Your task to perform on an android device: Go to location settings Image 0: 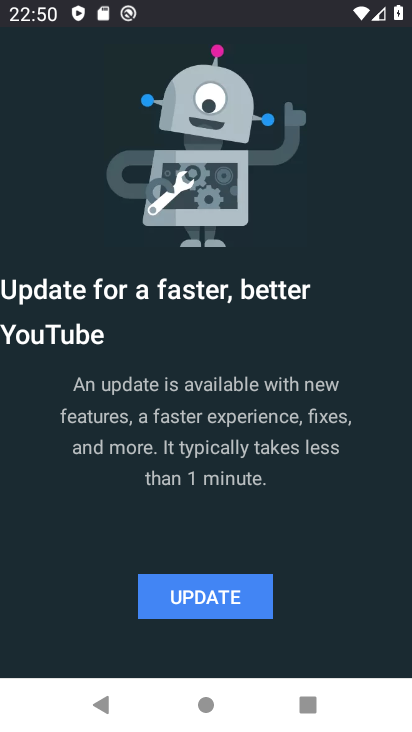
Step 0: press home button
Your task to perform on an android device: Go to location settings Image 1: 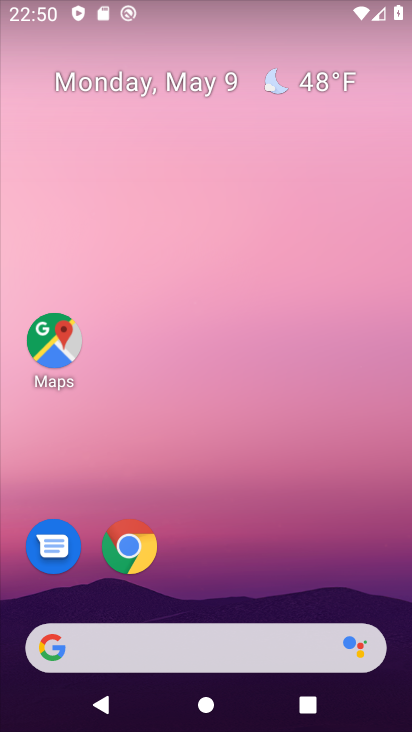
Step 1: drag from (226, 727) to (208, 215)
Your task to perform on an android device: Go to location settings Image 2: 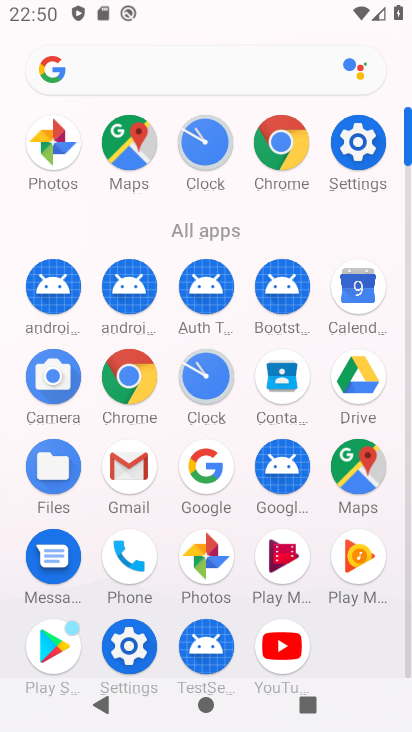
Step 2: click (368, 148)
Your task to perform on an android device: Go to location settings Image 3: 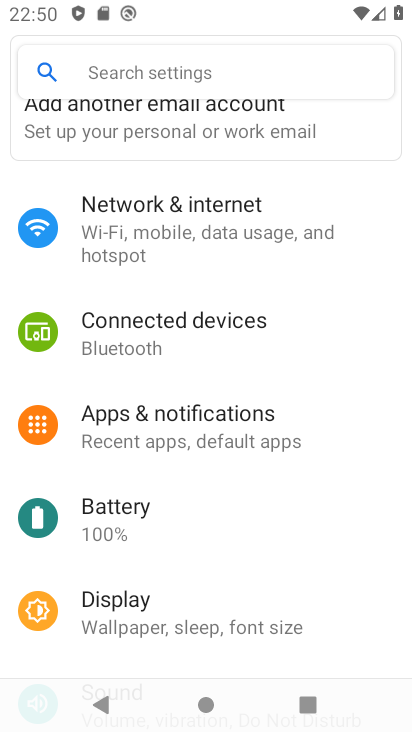
Step 3: drag from (191, 609) to (182, 287)
Your task to perform on an android device: Go to location settings Image 4: 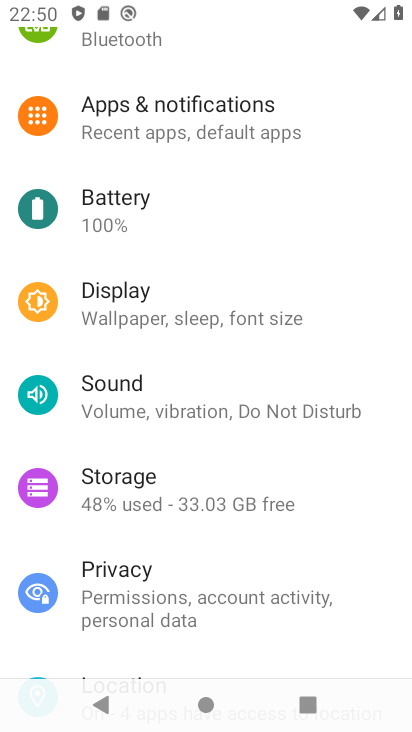
Step 4: drag from (244, 626) to (237, 286)
Your task to perform on an android device: Go to location settings Image 5: 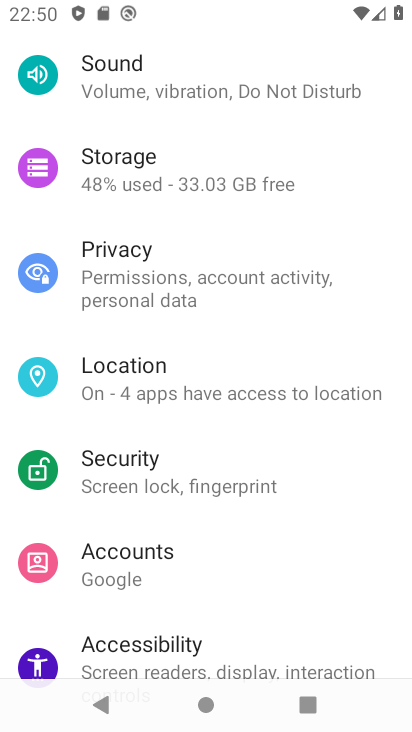
Step 5: click (127, 372)
Your task to perform on an android device: Go to location settings Image 6: 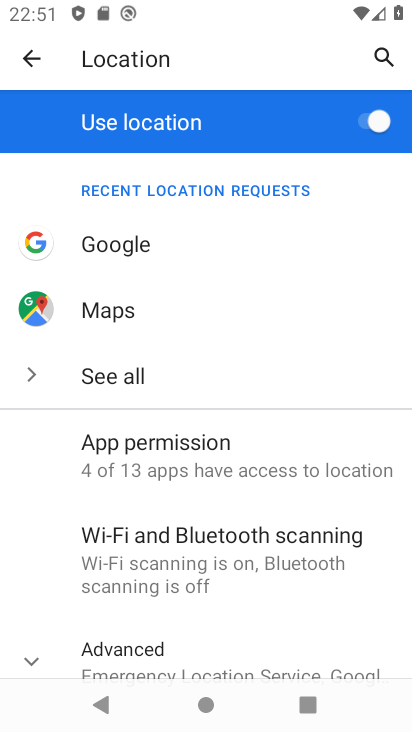
Step 6: task complete